Your task to perform on an android device: check google app version Image 0: 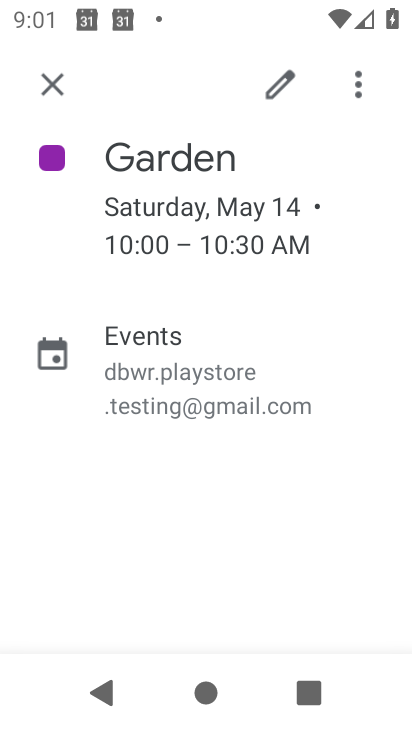
Step 0: press home button
Your task to perform on an android device: check google app version Image 1: 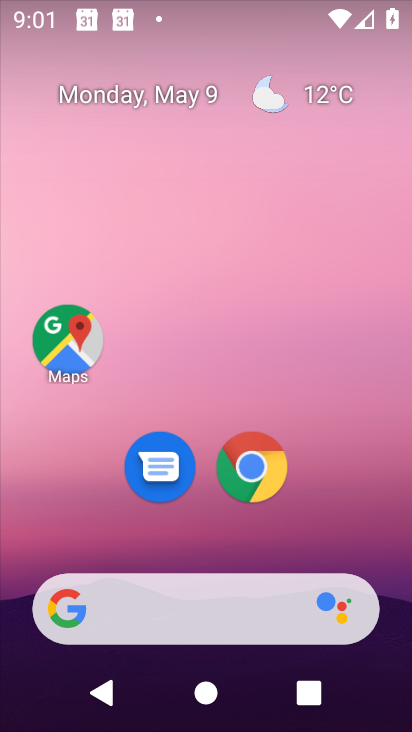
Step 1: drag from (378, 406) to (390, 8)
Your task to perform on an android device: check google app version Image 2: 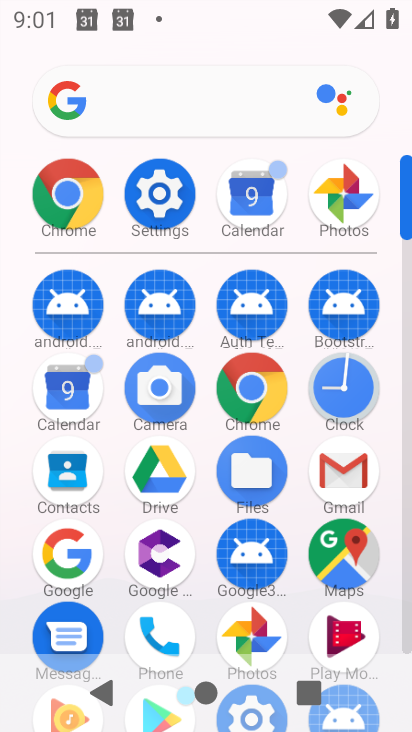
Step 2: click (68, 563)
Your task to perform on an android device: check google app version Image 3: 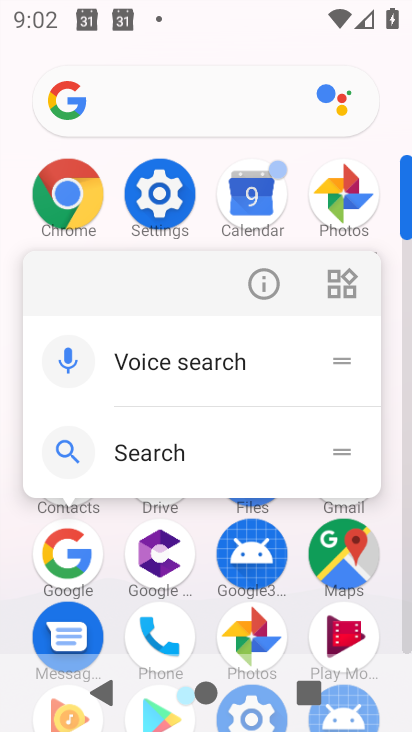
Step 3: click (263, 284)
Your task to perform on an android device: check google app version Image 4: 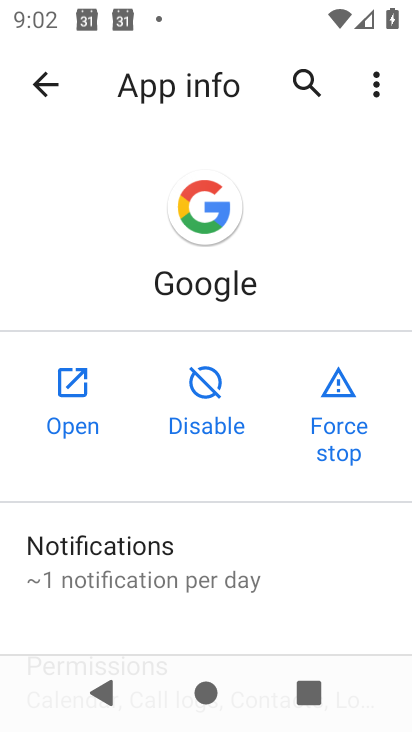
Step 4: drag from (260, 595) to (259, 96)
Your task to perform on an android device: check google app version Image 5: 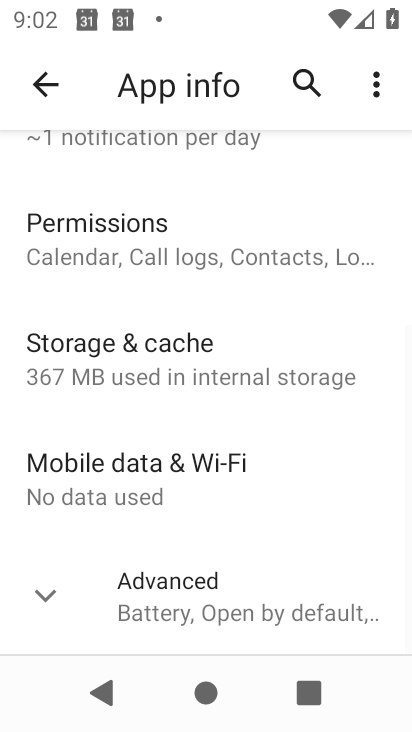
Step 5: drag from (180, 528) to (211, 183)
Your task to perform on an android device: check google app version Image 6: 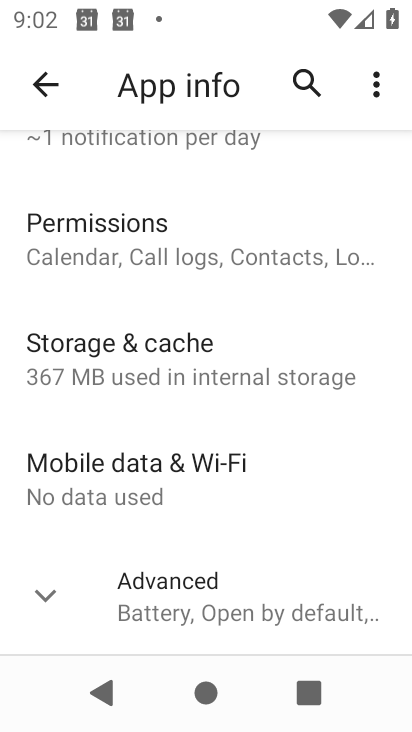
Step 6: click (44, 609)
Your task to perform on an android device: check google app version Image 7: 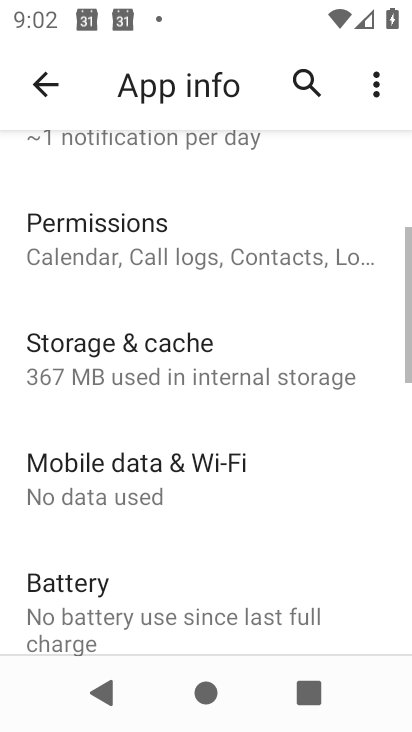
Step 7: task complete